Your task to perform on an android device: Do I have any events tomorrow? Image 0: 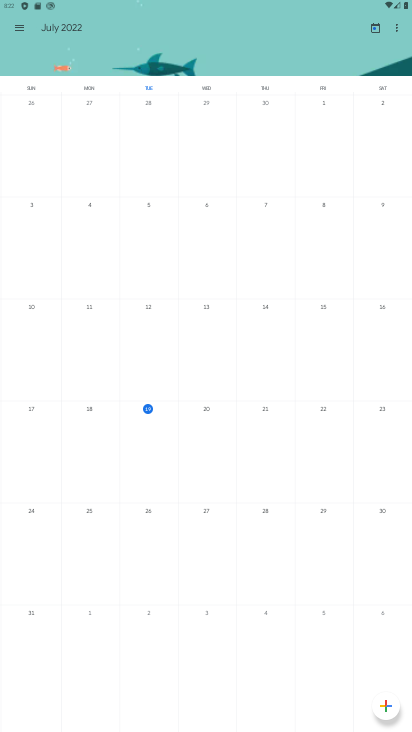
Step 0: click (19, 26)
Your task to perform on an android device: Do I have any events tomorrow? Image 1: 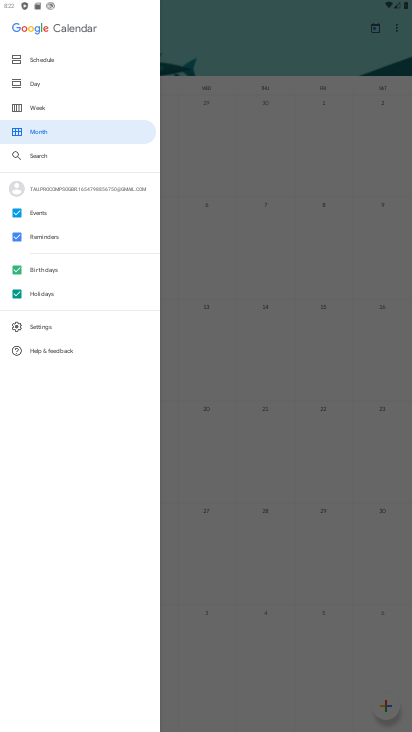
Step 1: click (16, 298)
Your task to perform on an android device: Do I have any events tomorrow? Image 2: 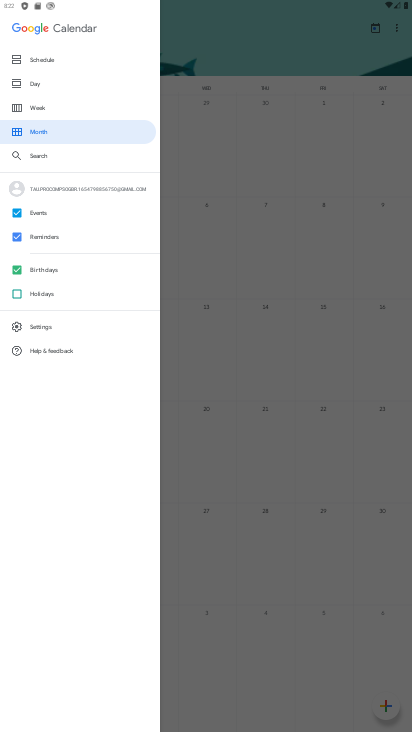
Step 2: click (17, 271)
Your task to perform on an android device: Do I have any events tomorrow? Image 3: 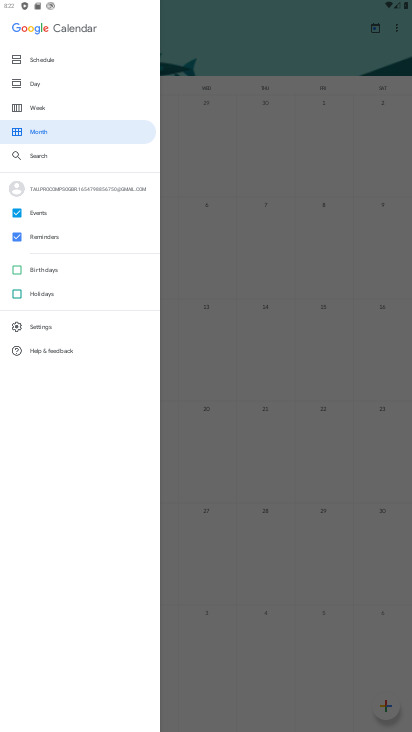
Step 3: click (17, 228)
Your task to perform on an android device: Do I have any events tomorrow? Image 4: 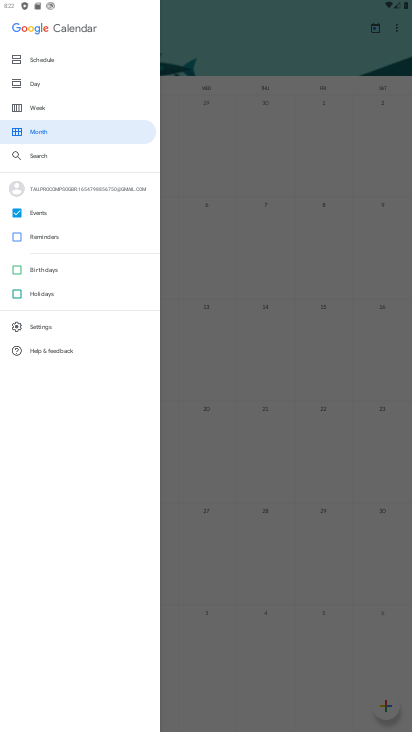
Step 4: click (34, 77)
Your task to perform on an android device: Do I have any events tomorrow? Image 5: 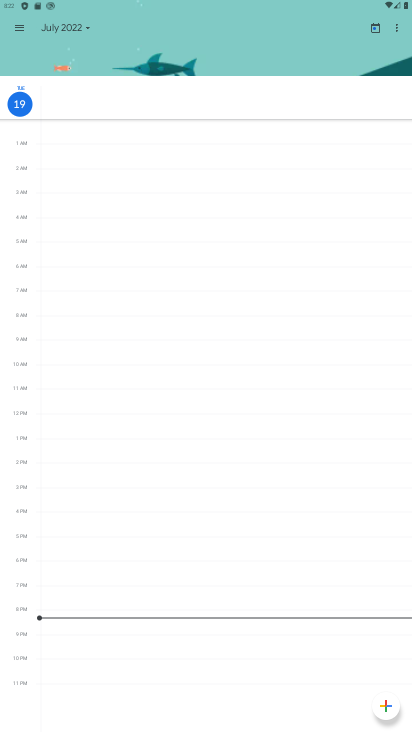
Step 5: task complete